Your task to perform on an android device: change the clock display to show seconds Image 0: 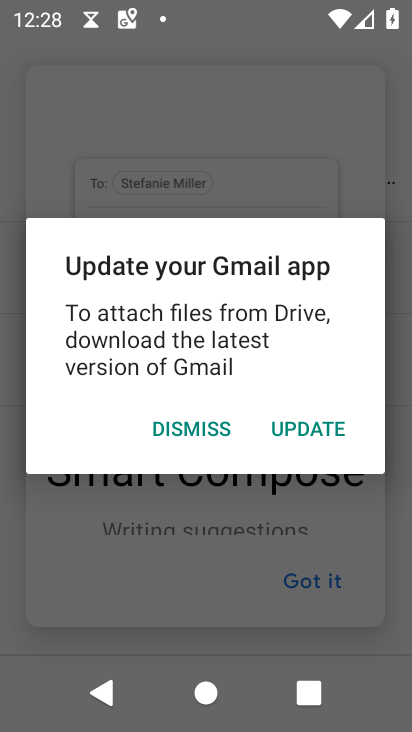
Step 0: press home button
Your task to perform on an android device: change the clock display to show seconds Image 1: 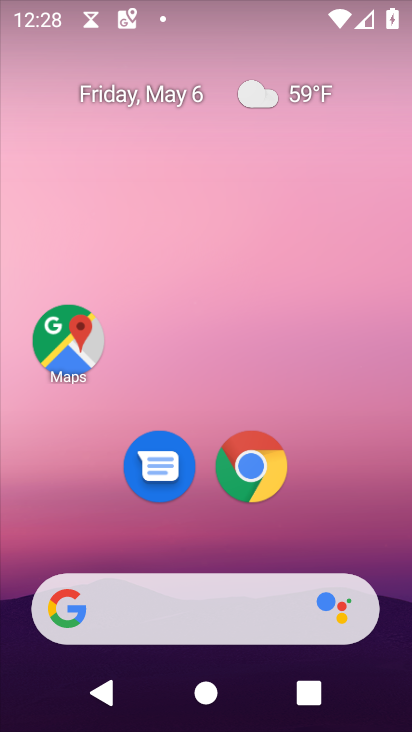
Step 1: drag from (388, 547) to (401, 240)
Your task to perform on an android device: change the clock display to show seconds Image 2: 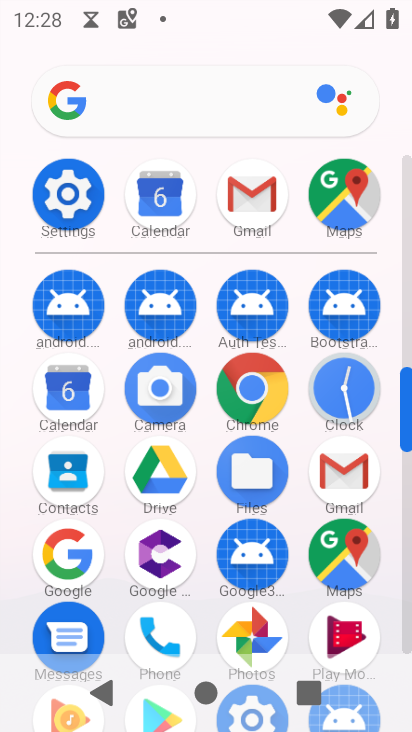
Step 2: click (347, 399)
Your task to perform on an android device: change the clock display to show seconds Image 3: 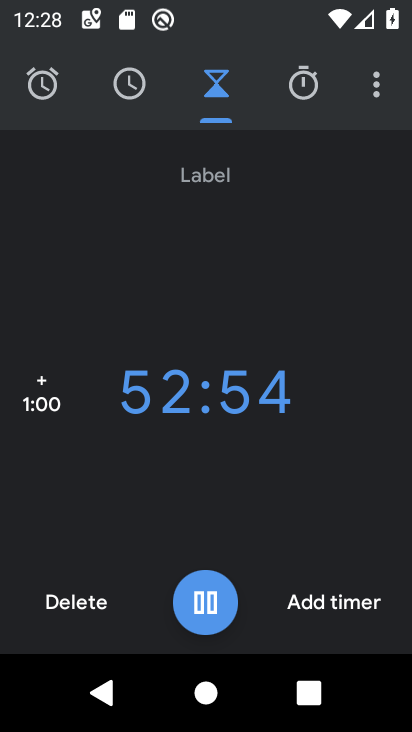
Step 3: click (382, 93)
Your task to perform on an android device: change the clock display to show seconds Image 4: 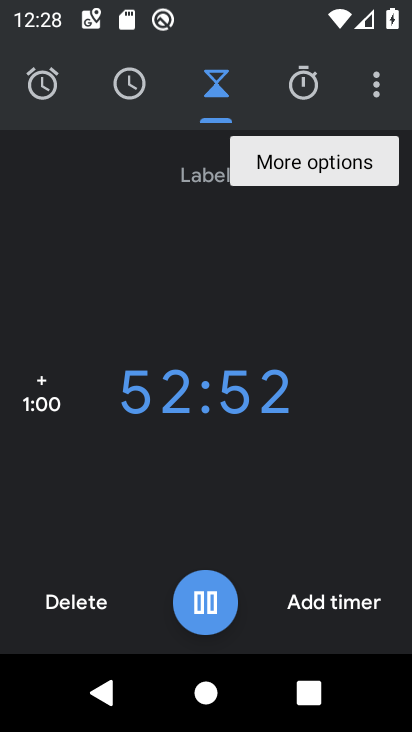
Step 4: click (382, 93)
Your task to perform on an android device: change the clock display to show seconds Image 5: 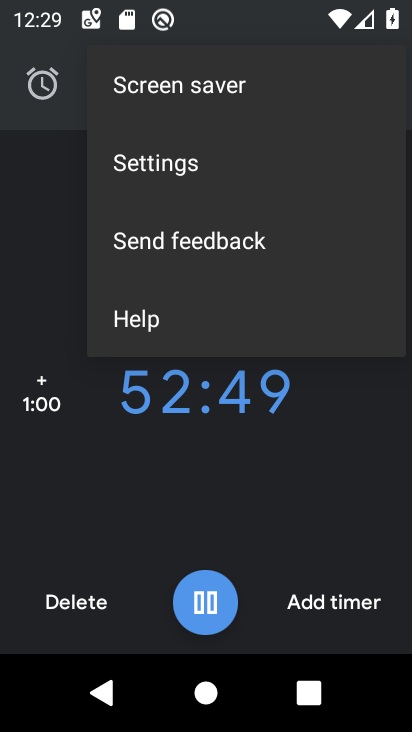
Step 5: click (312, 167)
Your task to perform on an android device: change the clock display to show seconds Image 6: 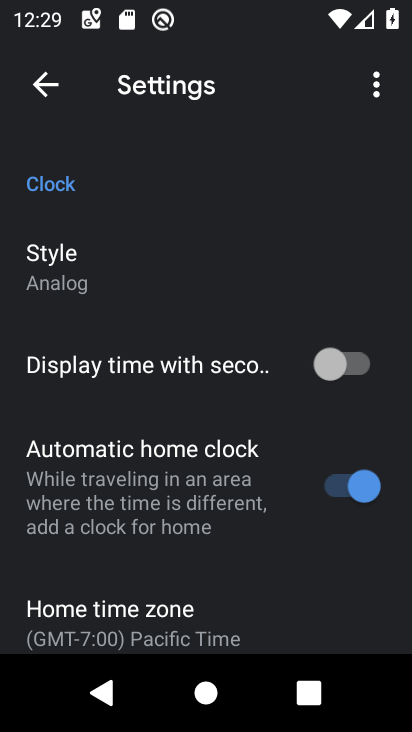
Step 6: click (331, 357)
Your task to perform on an android device: change the clock display to show seconds Image 7: 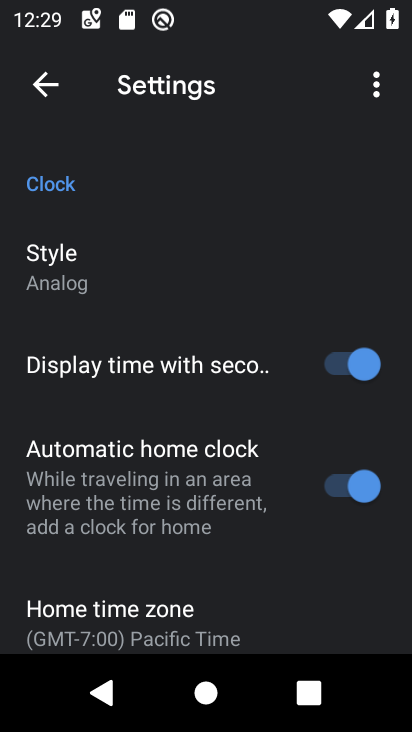
Step 7: task complete